Your task to perform on an android device: Open calendar and show me the third week of next month Image 0: 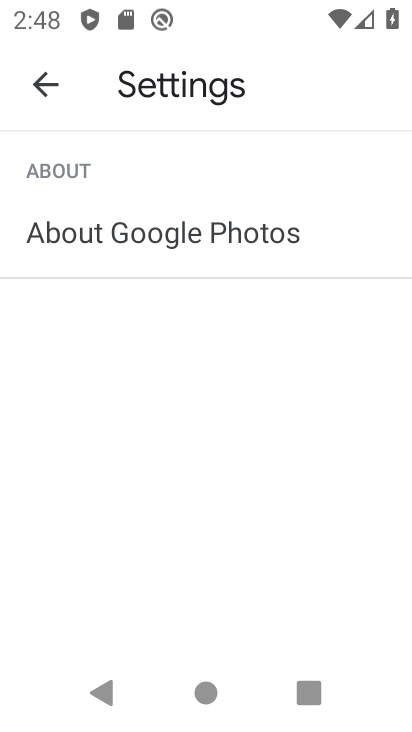
Step 0: press home button
Your task to perform on an android device: Open calendar and show me the third week of next month Image 1: 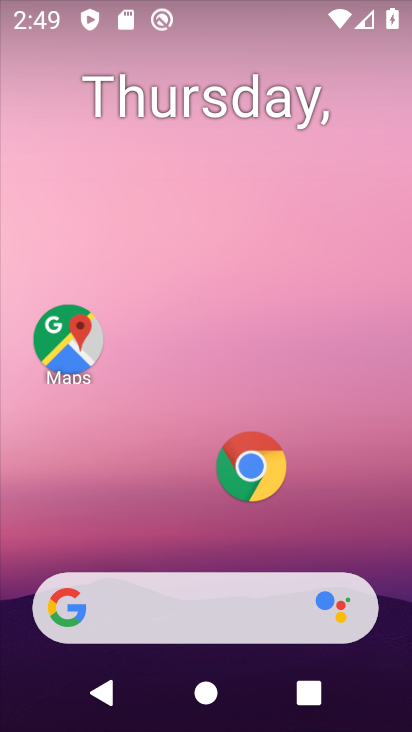
Step 1: drag from (193, 555) to (215, 140)
Your task to perform on an android device: Open calendar and show me the third week of next month Image 2: 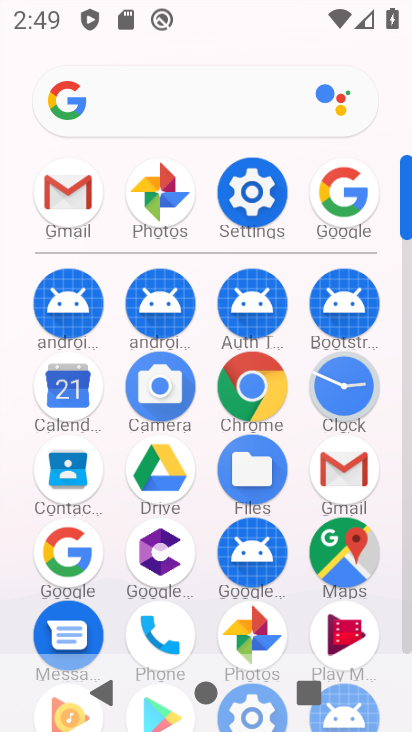
Step 2: click (88, 402)
Your task to perform on an android device: Open calendar and show me the third week of next month Image 3: 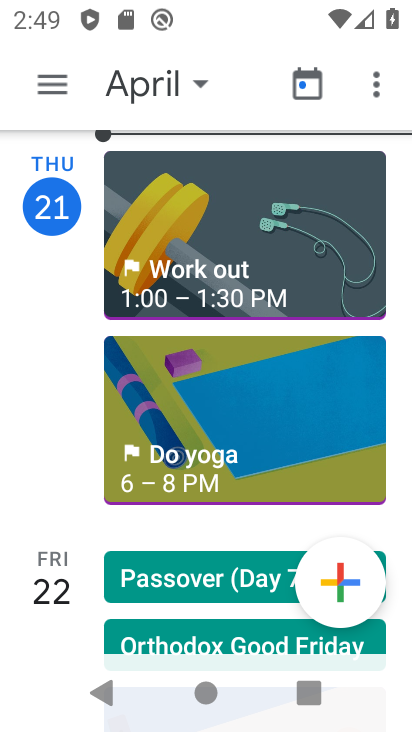
Step 3: click (161, 86)
Your task to perform on an android device: Open calendar and show me the third week of next month Image 4: 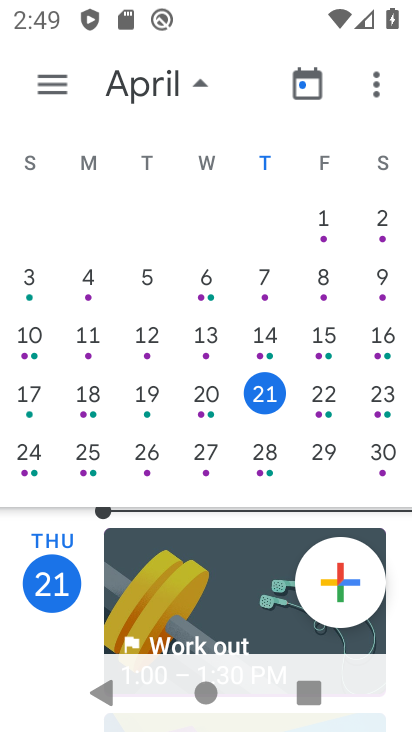
Step 4: drag from (355, 289) to (18, 269)
Your task to perform on an android device: Open calendar and show me the third week of next month Image 5: 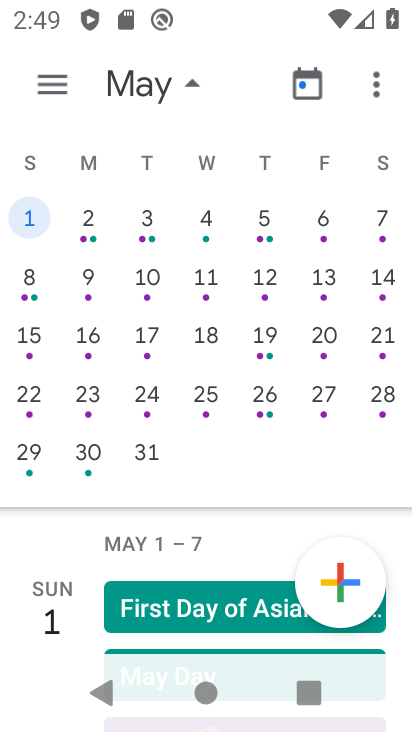
Step 5: click (91, 324)
Your task to perform on an android device: Open calendar and show me the third week of next month Image 6: 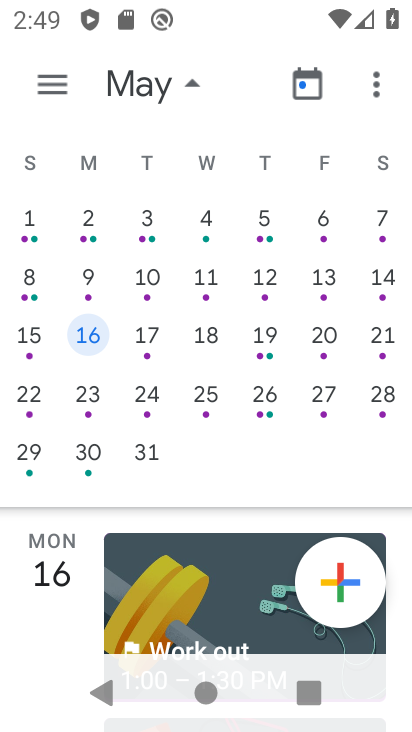
Step 6: task complete